Your task to perform on an android device: Open Chrome and go to settings Image 0: 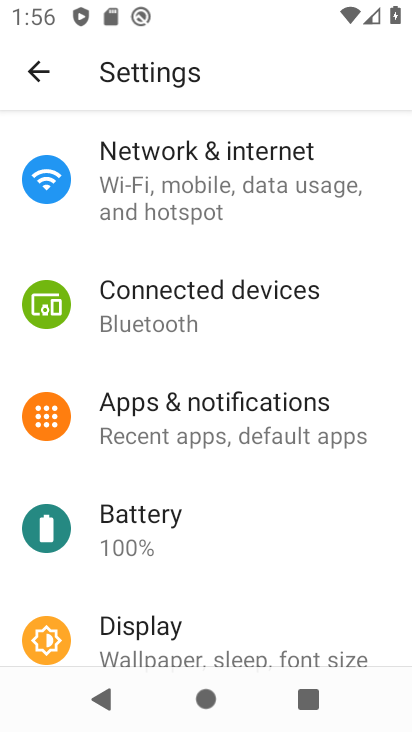
Step 0: press home button
Your task to perform on an android device: Open Chrome and go to settings Image 1: 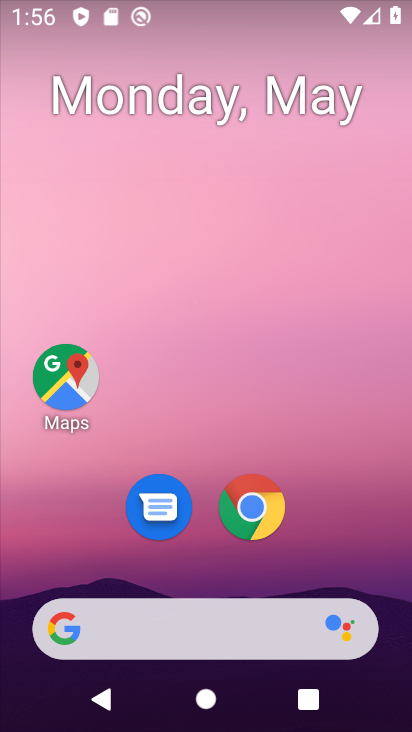
Step 1: click (254, 527)
Your task to perform on an android device: Open Chrome and go to settings Image 2: 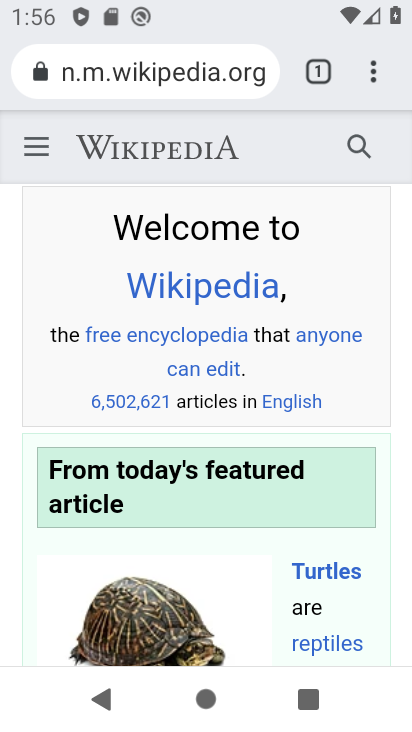
Step 2: click (379, 62)
Your task to perform on an android device: Open Chrome and go to settings Image 3: 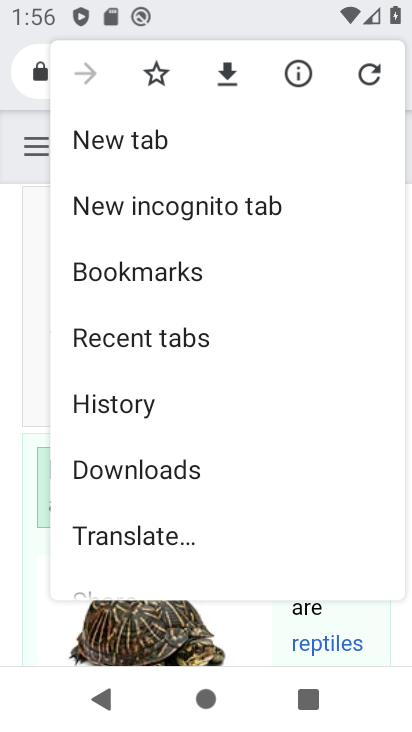
Step 3: drag from (133, 483) to (164, 177)
Your task to perform on an android device: Open Chrome and go to settings Image 4: 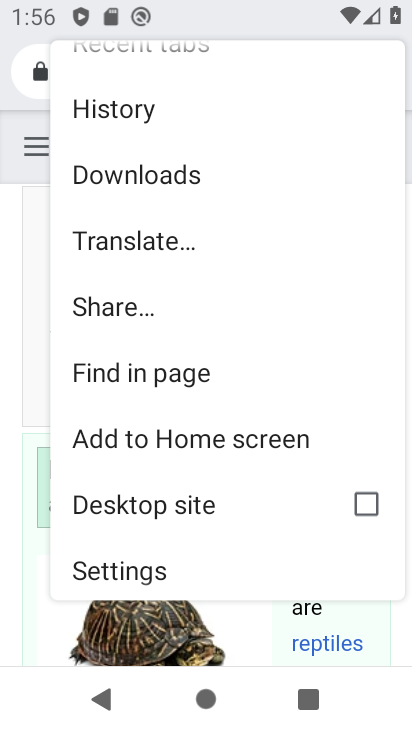
Step 4: click (131, 563)
Your task to perform on an android device: Open Chrome and go to settings Image 5: 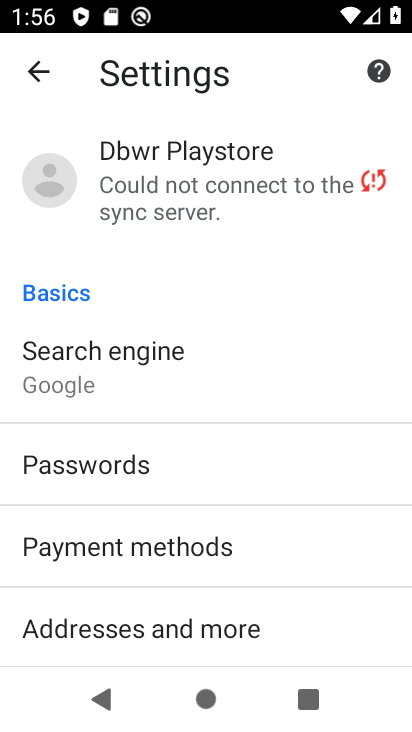
Step 5: task complete